Your task to perform on an android device: Search for Italian restaurants on Maps Image 0: 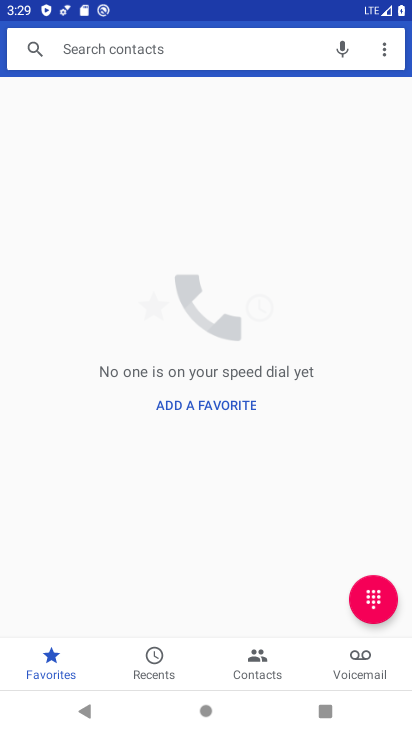
Step 0: press home button
Your task to perform on an android device: Search for Italian restaurants on Maps Image 1: 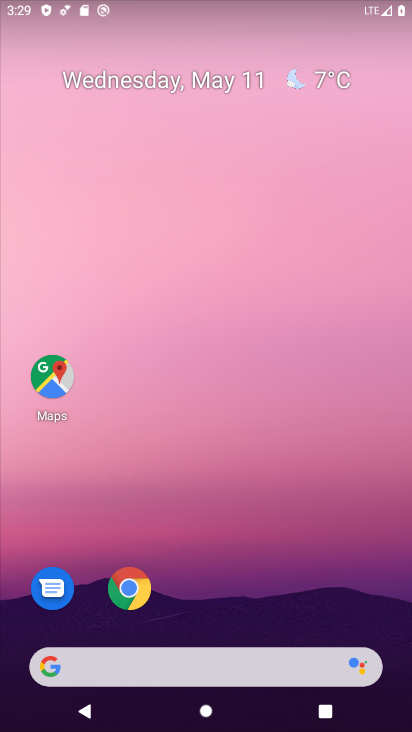
Step 1: drag from (236, 725) to (213, 119)
Your task to perform on an android device: Search for Italian restaurants on Maps Image 2: 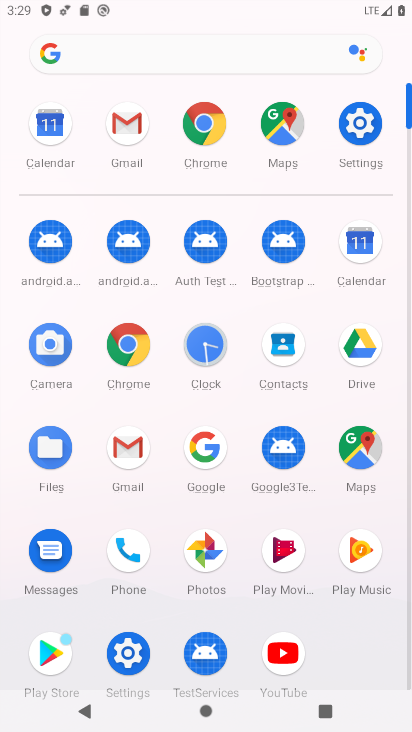
Step 2: click (361, 455)
Your task to perform on an android device: Search for Italian restaurants on Maps Image 3: 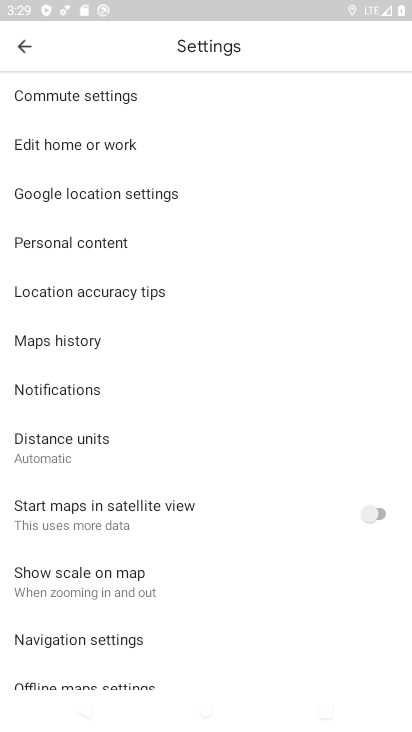
Step 3: click (23, 48)
Your task to perform on an android device: Search for Italian restaurants on Maps Image 4: 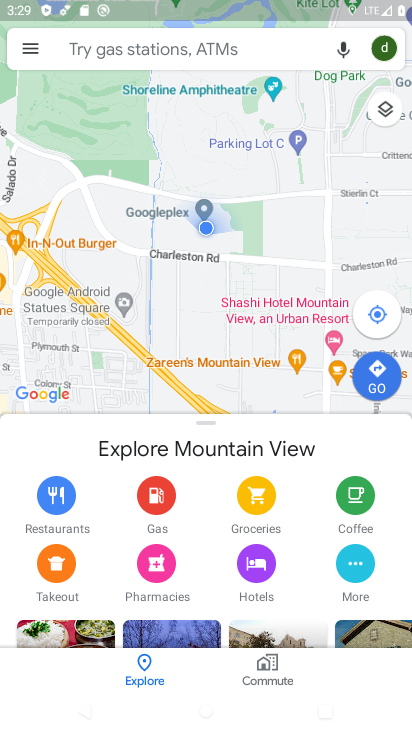
Step 4: click (145, 49)
Your task to perform on an android device: Search for Italian restaurants on Maps Image 5: 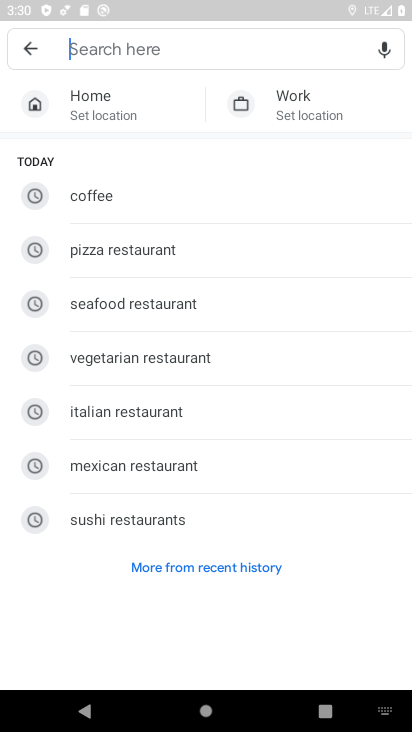
Step 5: type "italian restaurants"
Your task to perform on an android device: Search for Italian restaurants on Maps Image 6: 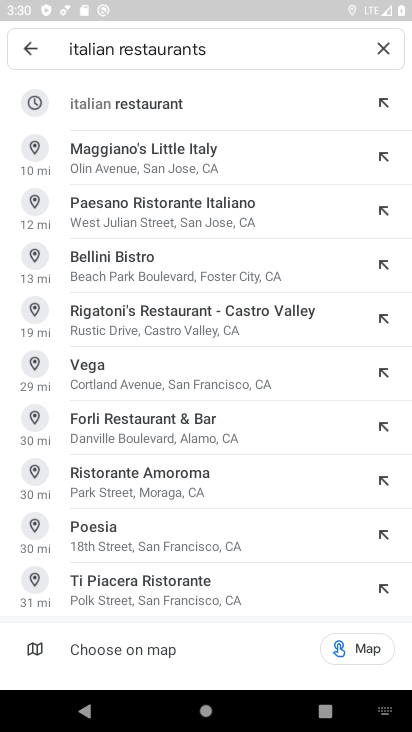
Step 6: click (161, 98)
Your task to perform on an android device: Search for Italian restaurants on Maps Image 7: 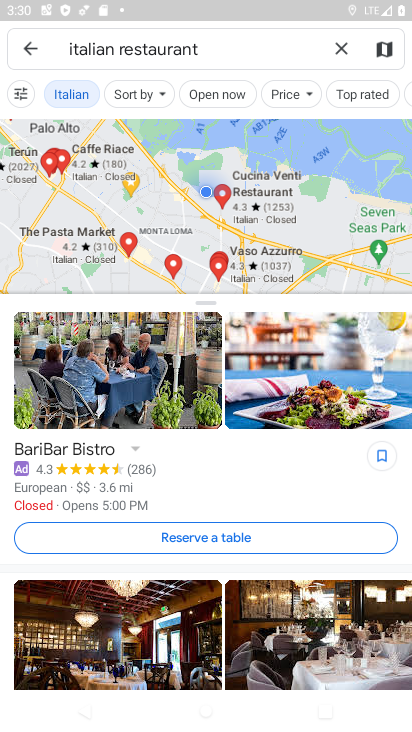
Step 7: task complete